Your task to perform on an android device: Show me recent news Image 0: 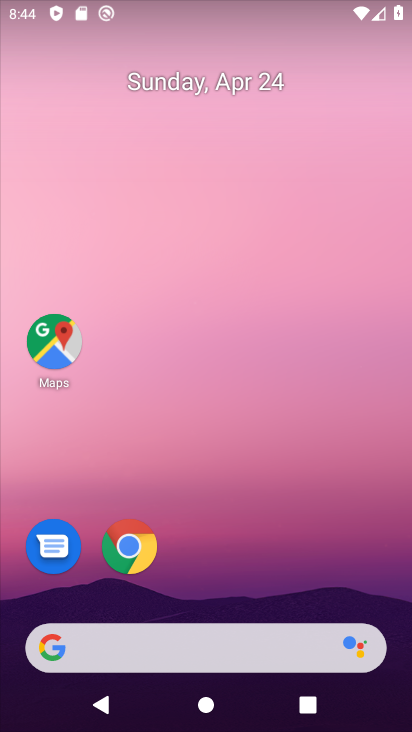
Step 0: drag from (240, 581) to (300, 151)
Your task to perform on an android device: Show me recent news Image 1: 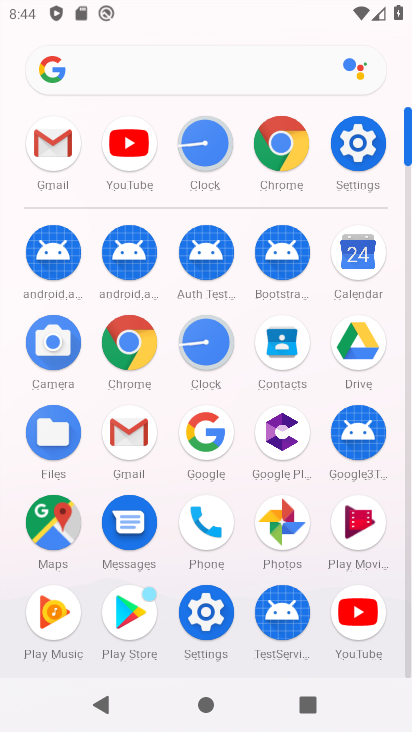
Step 1: drag from (177, 554) to (226, 282)
Your task to perform on an android device: Show me recent news Image 2: 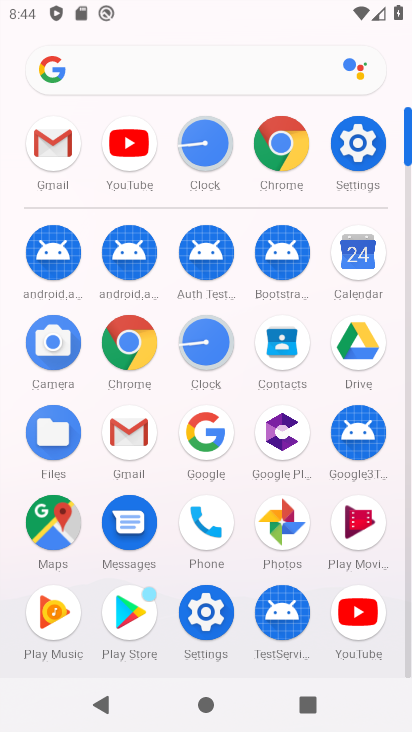
Step 2: click (221, 443)
Your task to perform on an android device: Show me recent news Image 3: 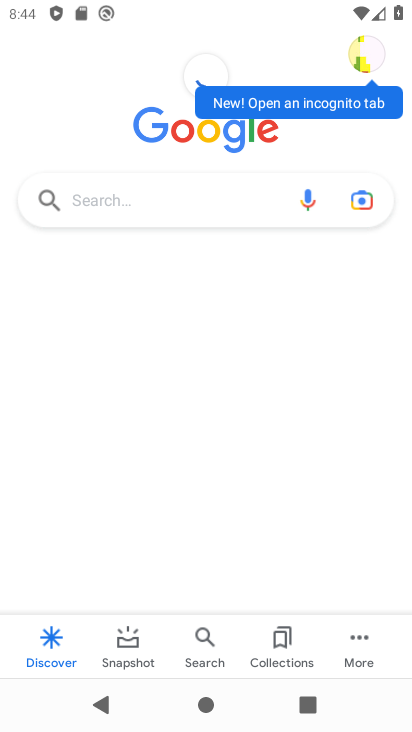
Step 3: click (179, 187)
Your task to perform on an android device: Show me recent news Image 4: 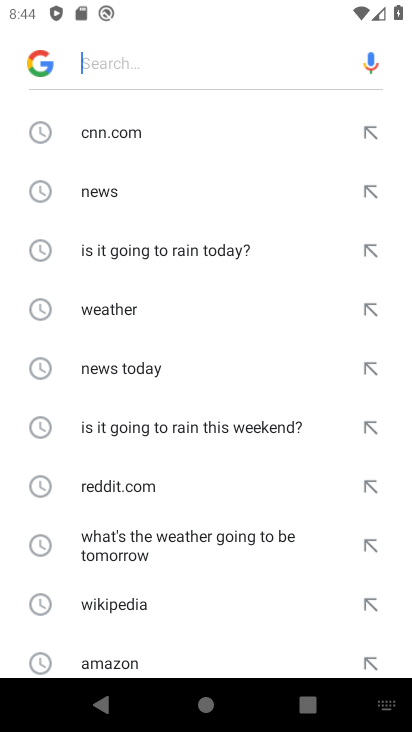
Step 4: click (179, 187)
Your task to perform on an android device: Show me recent news Image 5: 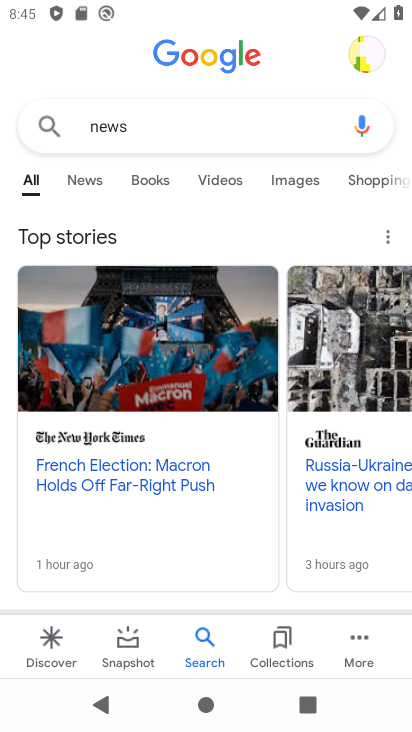
Step 5: task complete